Your task to perform on an android device: Open calendar and show me the fourth week of next month Image 0: 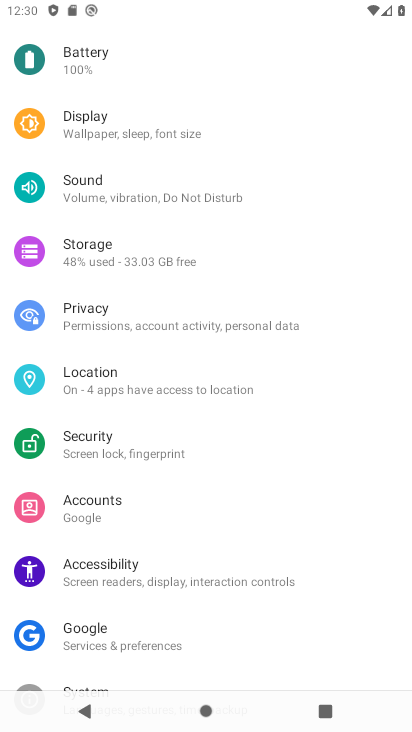
Step 0: press home button
Your task to perform on an android device: Open calendar and show me the fourth week of next month Image 1: 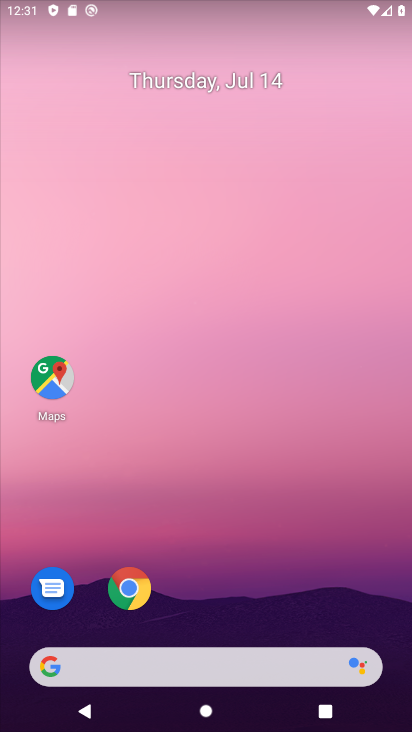
Step 1: drag from (267, 663) to (363, 109)
Your task to perform on an android device: Open calendar and show me the fourth week of next month Image 2: 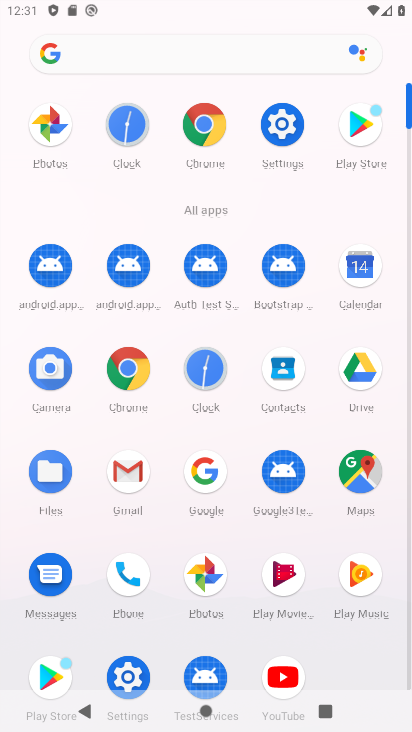
Step 2: click (367, 268)
Your task to perform on an android device: Open calendar and show me the fourth week of next month Image 3: 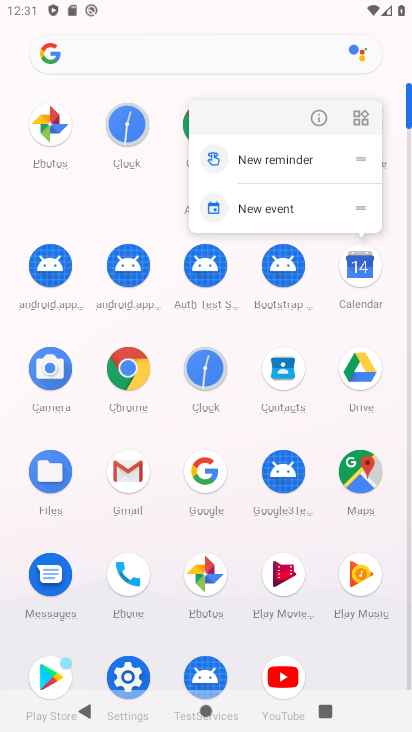
Step 3: click (360, 272)
Your task to perform on an android device: Open calendar and show me the fourth week of next month Image 4: 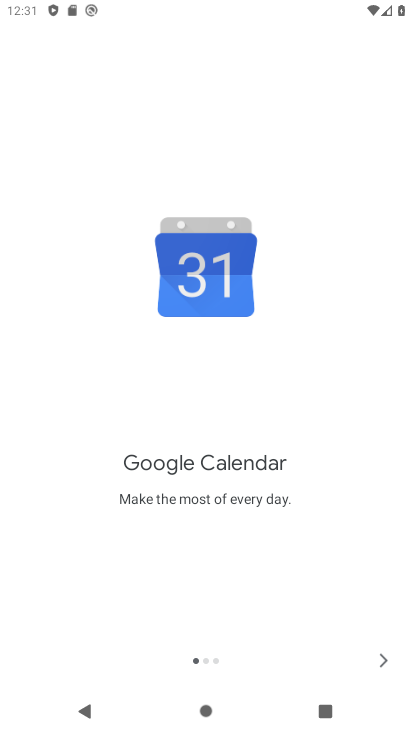
Step 4: click (376, 663)
Your task to perform on an android device: Open calendar and show me the fourth week of next month Image 5: 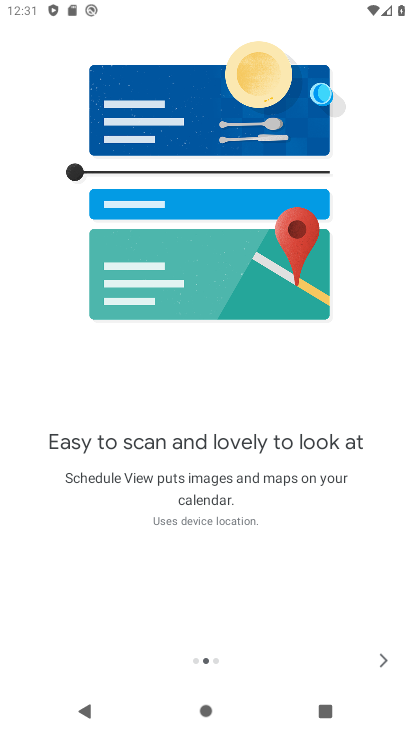
Step 5: click (376, 663)
Your task to perform on an android device: Open calendar and show me the fourth week of next month Image 6: 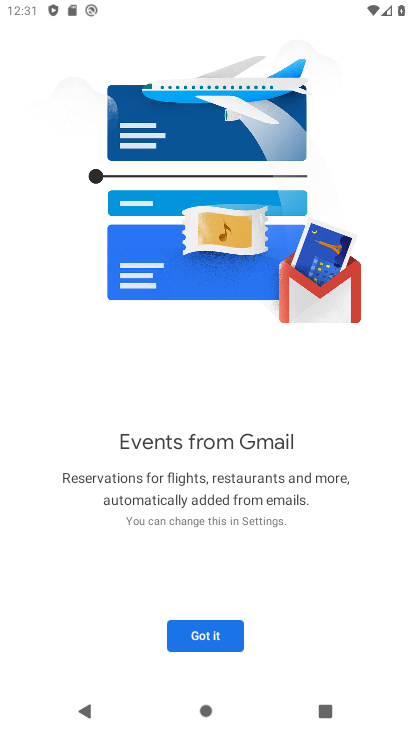
Step 6: click (213, 632)
Your task to perform on an android device: Open calendar and show me the fourth week of next month Image 7: 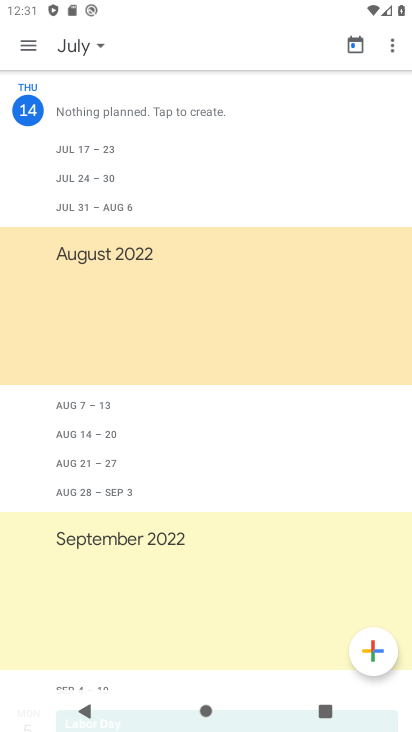
Step 7: click (73, 48)
Your task to perform on an android device: Open calendar and show me the fourth week of next month Image 8: 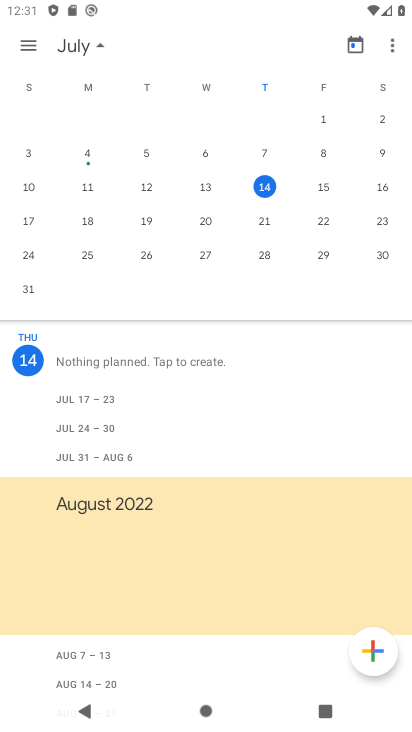
Step 8: drag from (363, 199) to (98, 198)
Your task to perform on an android device: Open calendar and show me the fourth week of next month Image 9: 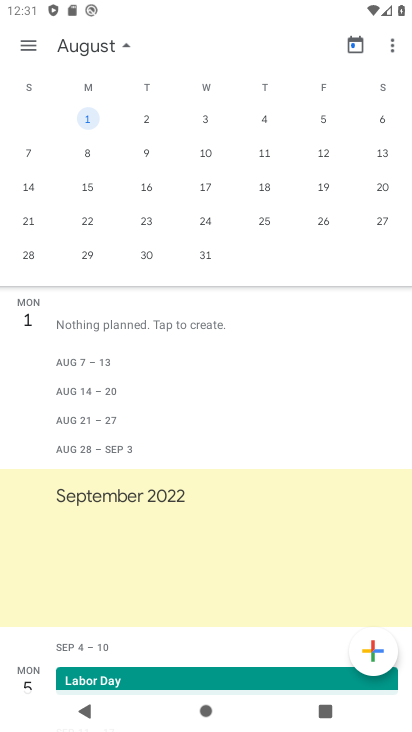
Step 9: click (28, 222)
Your task to perform on an android device: Open calendar and show me the fourth week of next month Image 10: 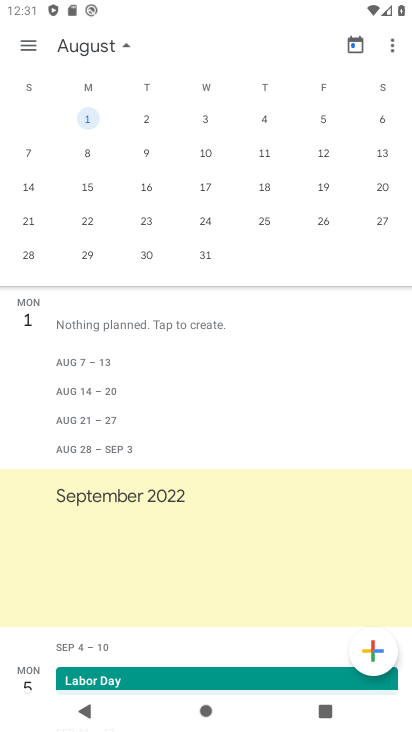
Step 10: click (26, 223)
Your task to perform on an android device: Open calendar and show me the fourth week of next month Image 11: 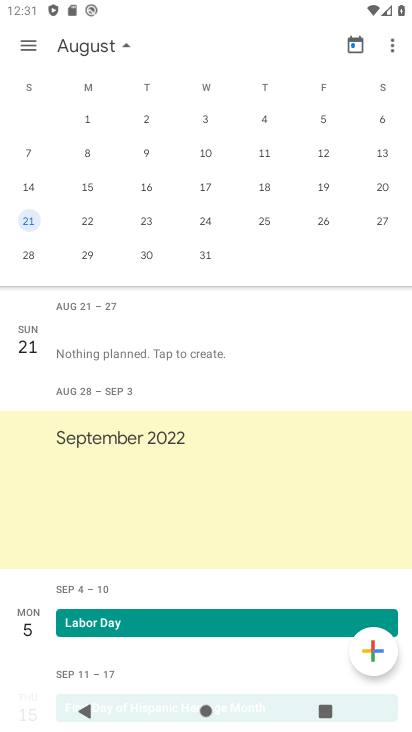
Step 11: click (24, 41)
Your task to perform on an android device: Open calendar and show me the fourth week of next month Image 12: 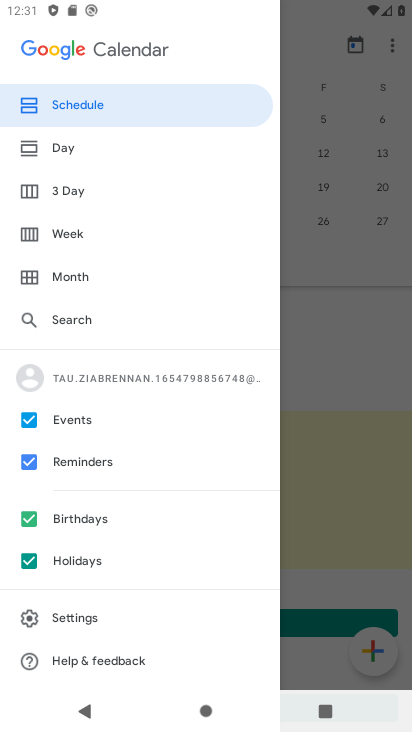
Step 12: click (71, 240)
Your task to perform on an android device: Open calendar and show me the fourth week of next month Image 13: 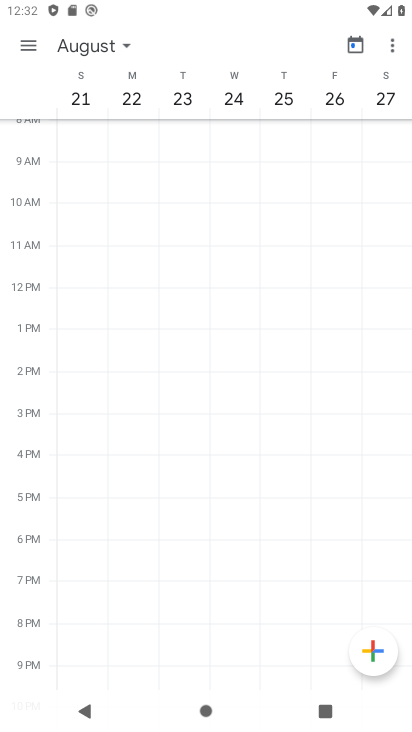
Step 13: task complete